Your task to perform on an android device: turn smart compose on in the gmail app Image 0: 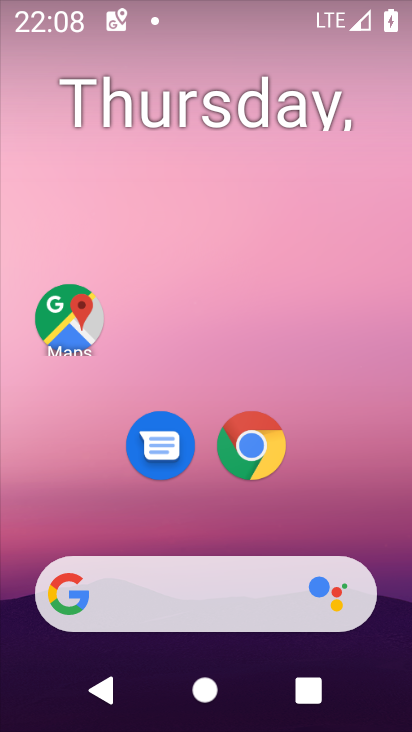
Step 0: drag from (201, 531) to (238, 148)
Your task to perform on an android device: turn smart compose on in the gmail app Image 1: 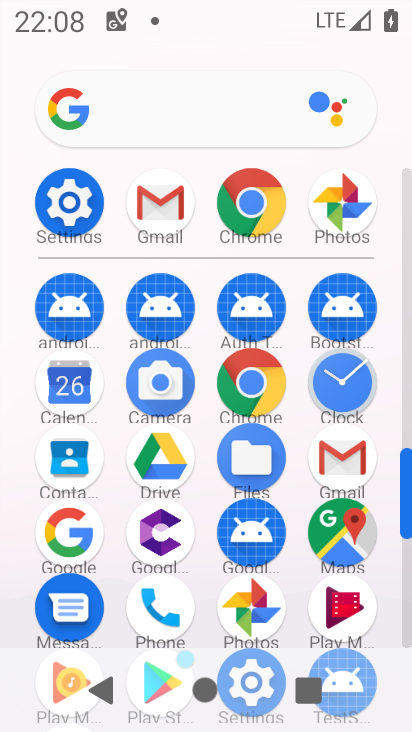
Step 1: click (328, 482)
Your task to perform on an android device: turn smart compose on in the gmail app Image 2: 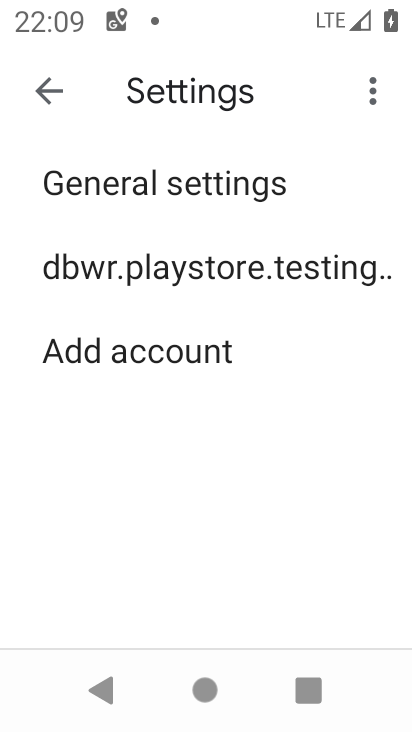
Step 2: click (194, 268)
Your task to perform on an android device: turn smart compose on in the gmail app Image 3: 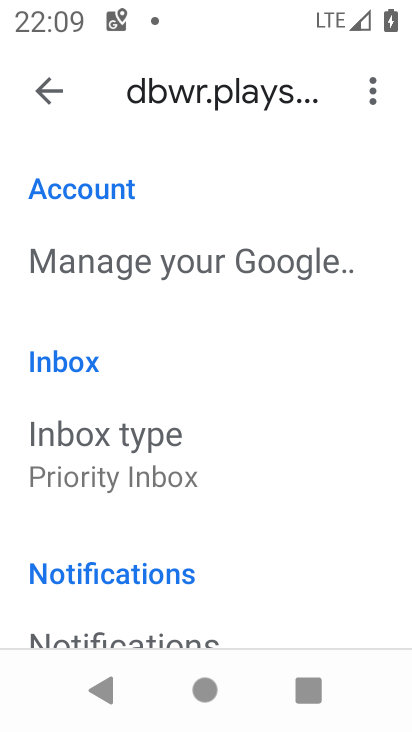
Step 3: task complete